Your task to perform on an android device: toggle data saver in the chrome app Image 0: 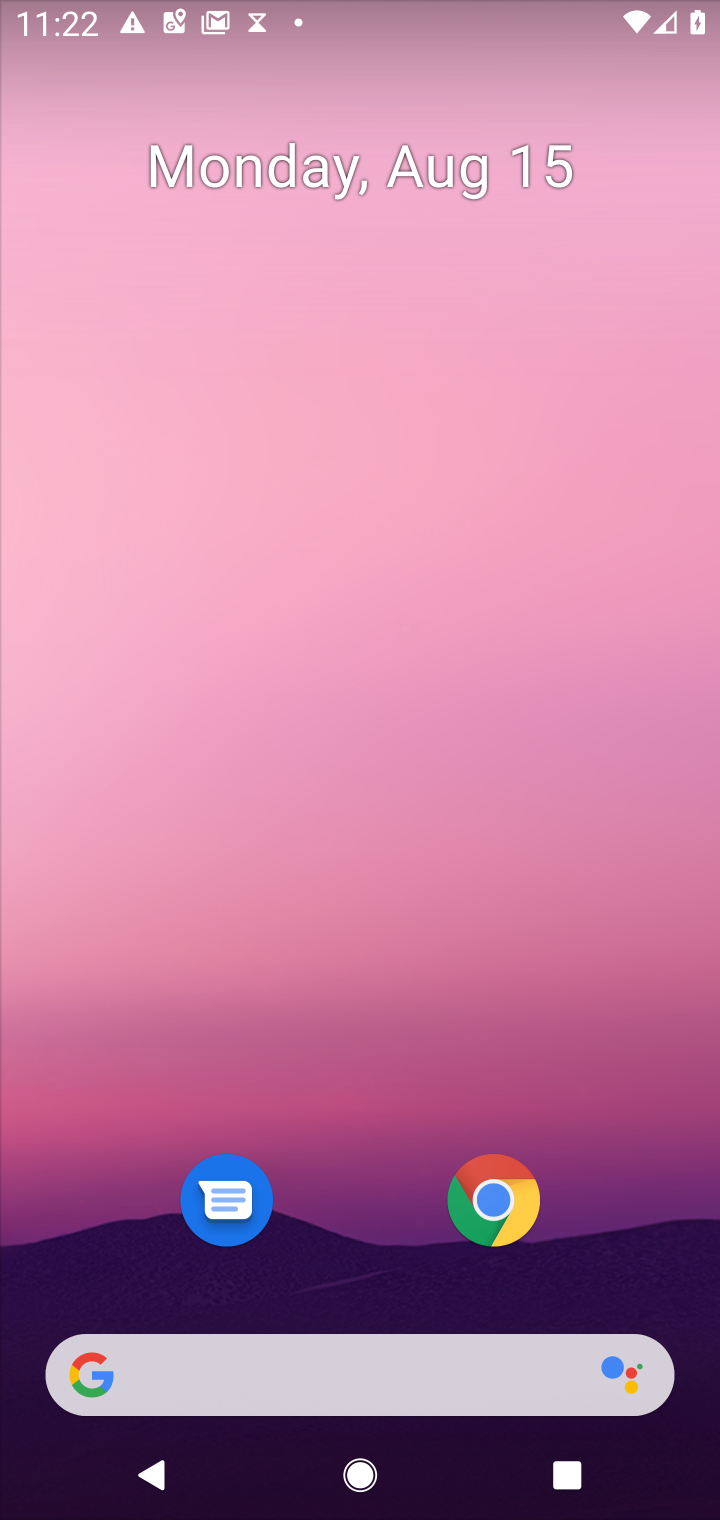
Step 0: click (476, 1219)
Your task to perform on an android device: toggle data saver in the chrome app Image 1: 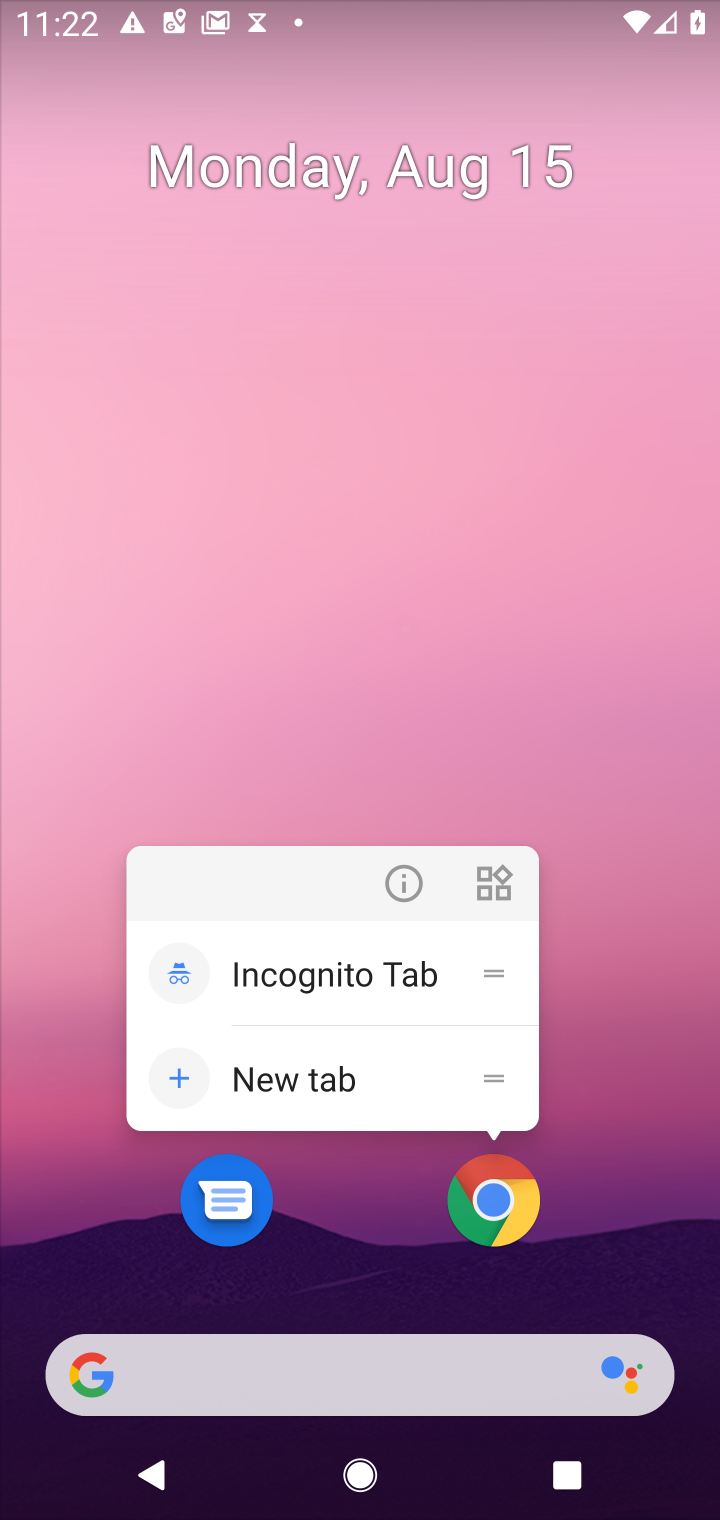
Step 1: click (487, 1213)
Your task to perform on an android device: toggle data saver in the chrome app Image 2: 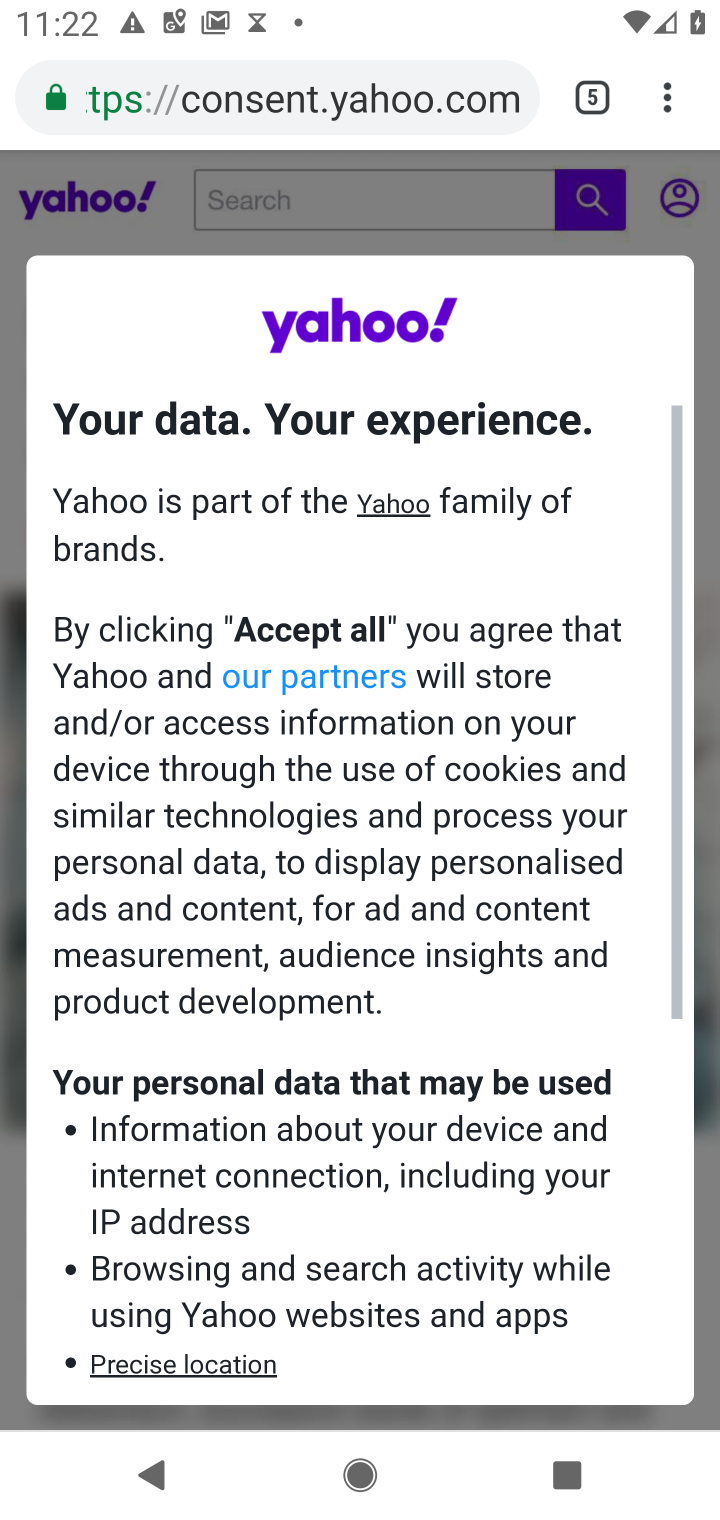
Step 2: click (669, 92)
Your task to perform on an android device: toggle data saver in the chrome app Image 3: 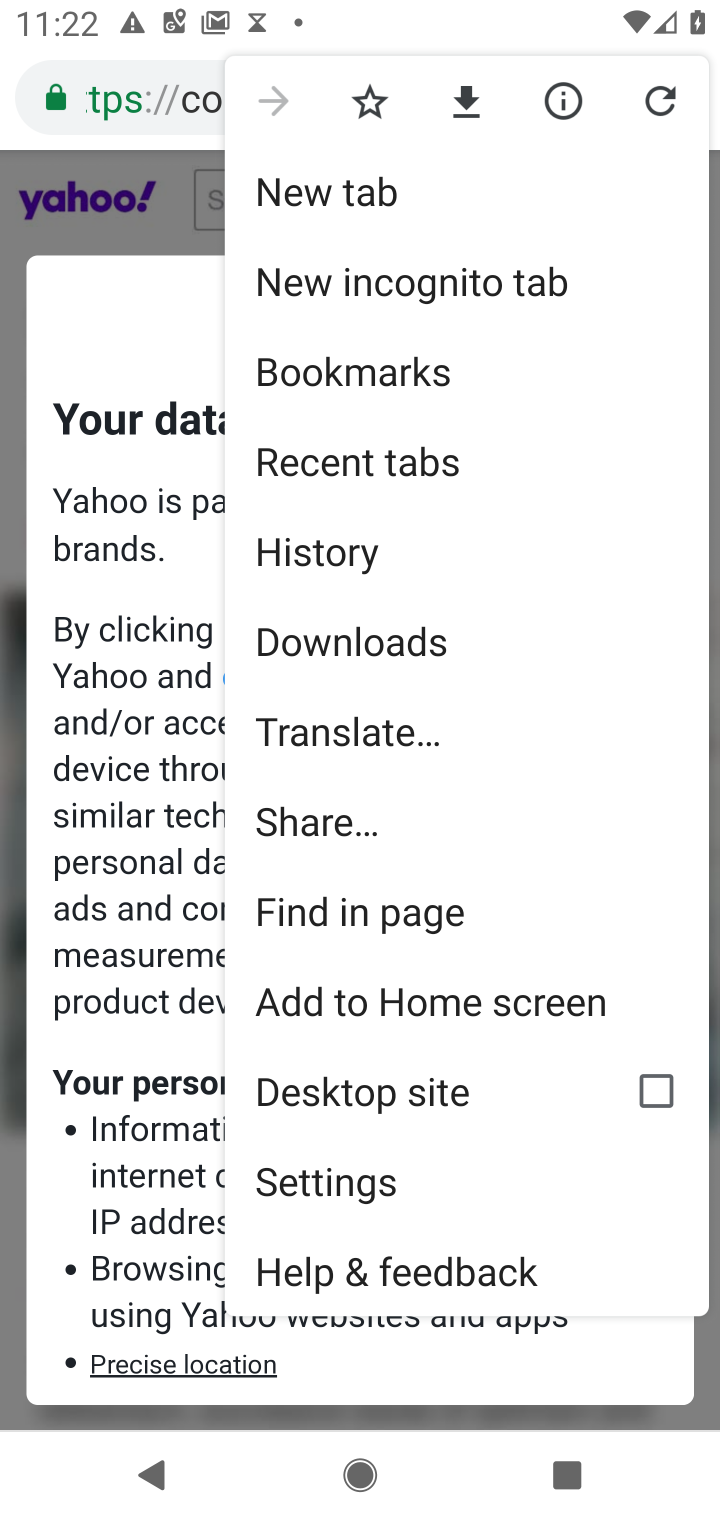
Step 3: click (356, 1175)
Your task to perform on an android device: toggle data saver in the chrome app Image 4: 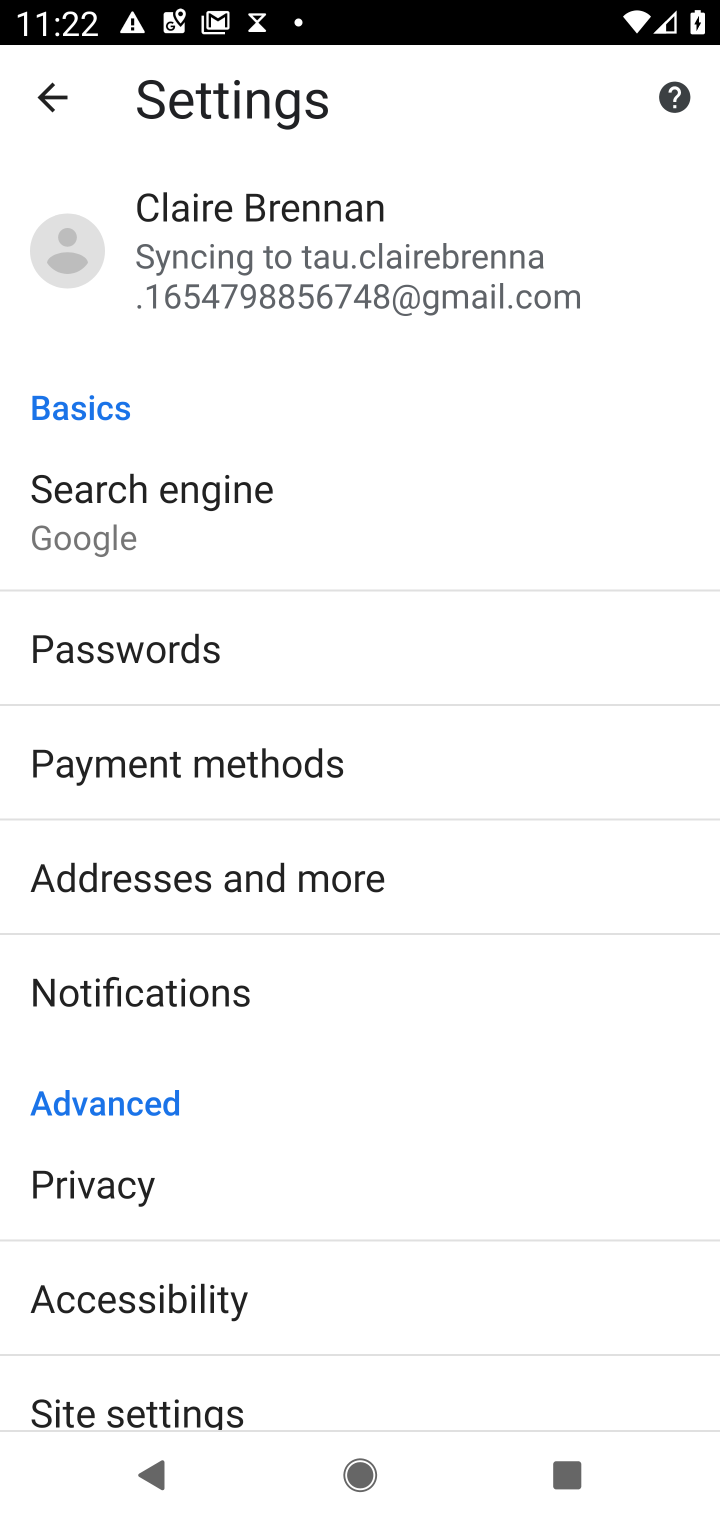
Step 4: drag from (399, 1308) to (347, 545)
Your task to perform on an android device: toggle data saver in the chrome app Image 5: 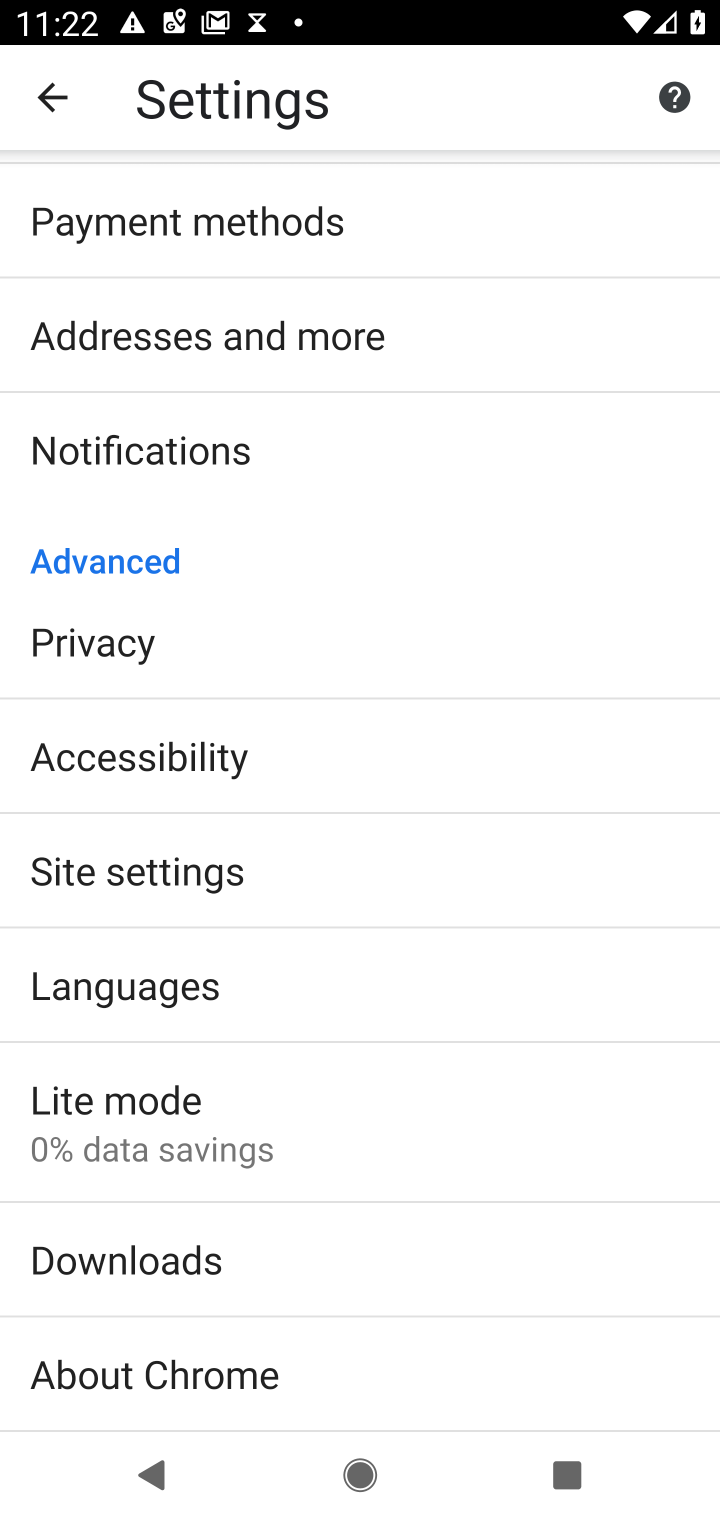
Step 5: click (230, 1142)
Your task to perform on an android device: toggle data saver in the chrome app Image 6: 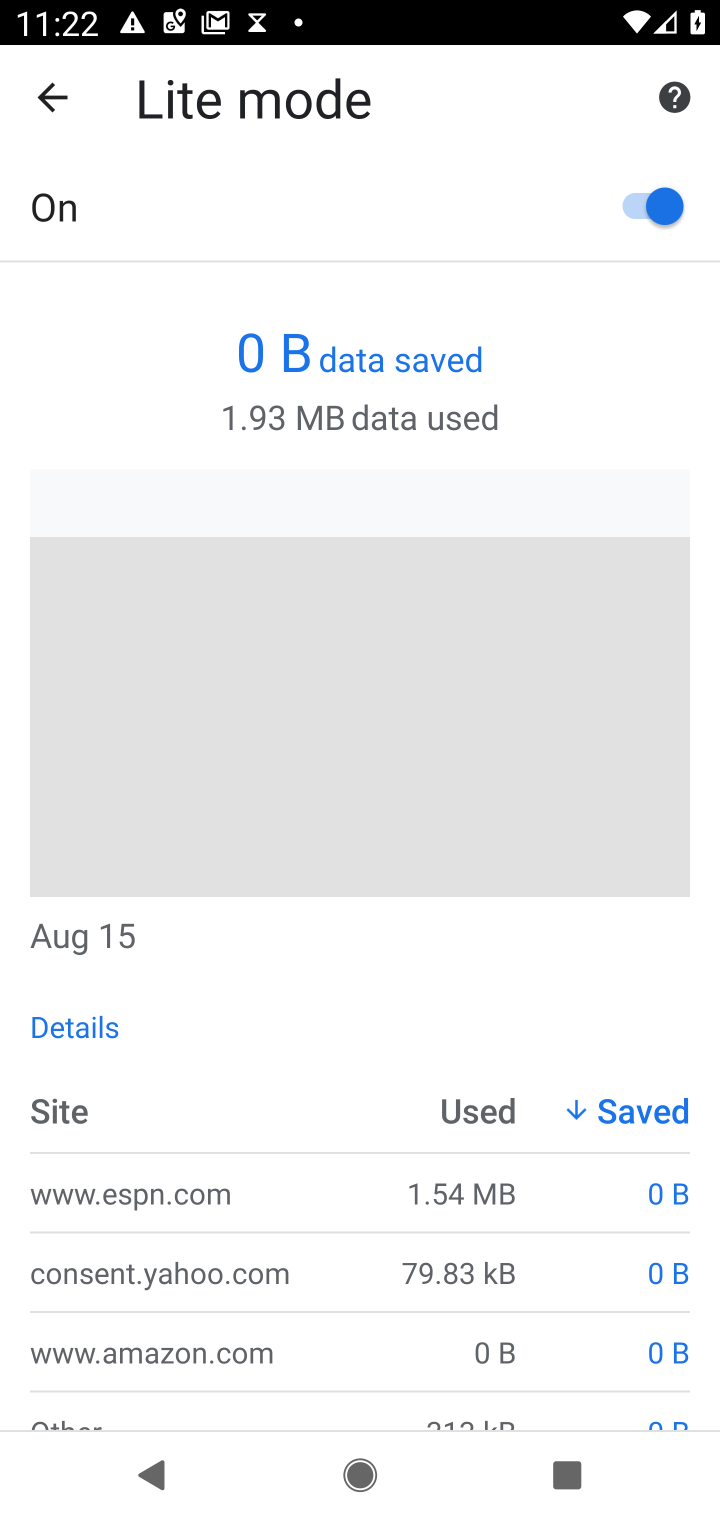
Step 6: click (626, 192)
Your task to perform on an android device: toggle data saver in the chrome app Image 7: 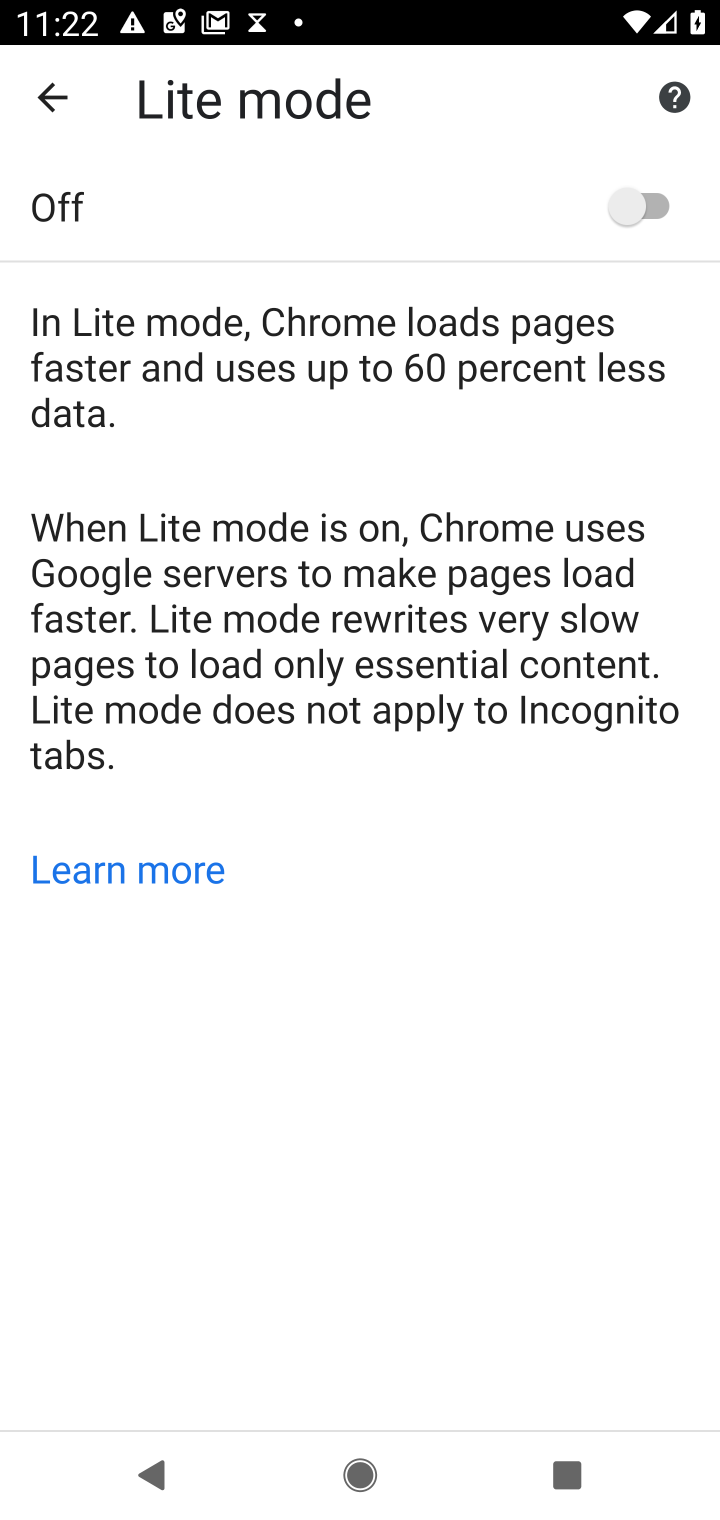
Step 7: task complete